Your task to perform on an android device: add a label to a message in the gmail app Image 0: 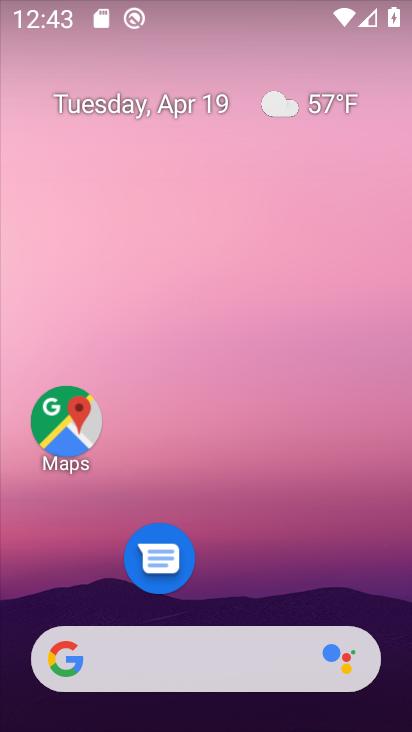
Step 0: drag from (266, 603) to (162, 157)
Your task to perform on an android device: add a label to a message in the gmail app Image 1: 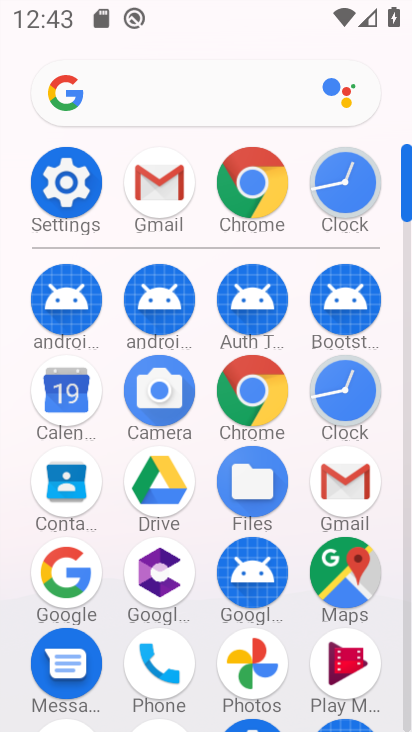
Step 1: click (166, 191)
Your task to perform on an android device: add a label to a message in the gmail app Image 2: 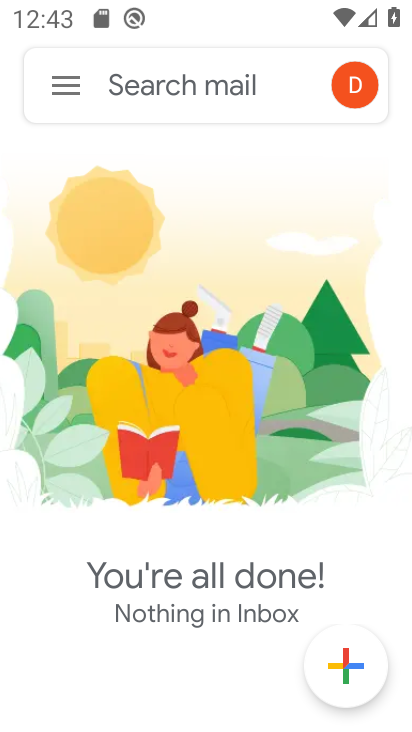
Step 2: click (75, 94)
Your task to perform on an android device: add a label to a message in the gmail app Image 3: 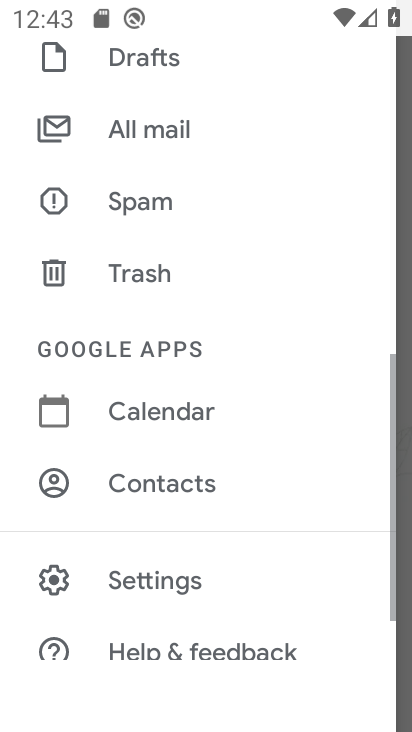
Step 3: task complete